Your task to perform on an android device: Show me the alarms in the clock app Image 0: 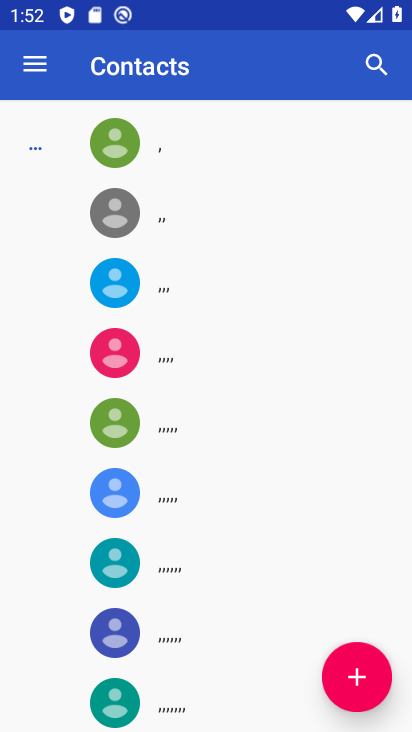
Step 0: press home button
Your task to perform on an android device: Show me the alarms in the clock app Image 1: 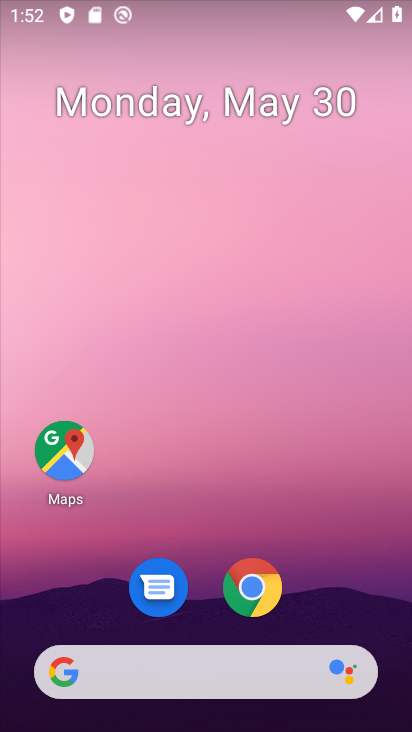
Step 1: drag from (130, 729) to (138, 205)
Your task to perform on an android device: Show me the alarms in the clock app Image 2: 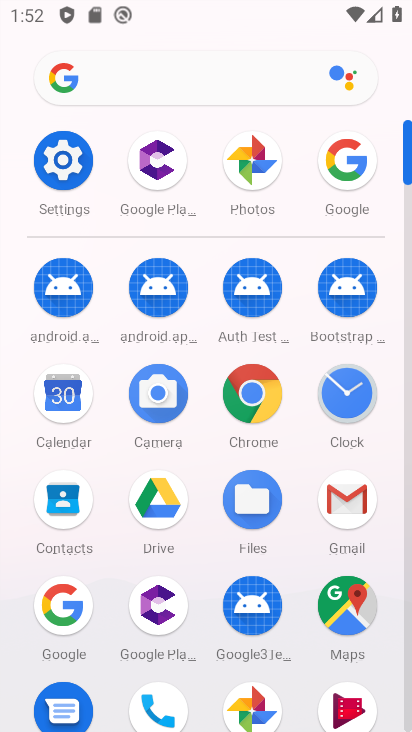
Step 2: click (349, 400)
Your task to perform on an android device: Show me the alarms in the clock app Image 3: 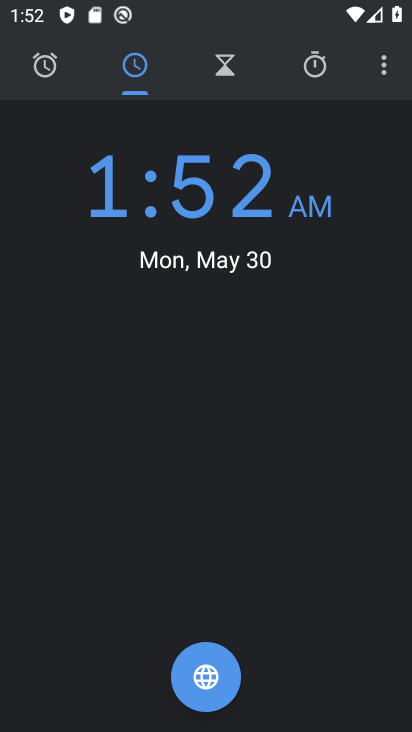
Step 3: click (47, 60)
Your task to perform on an android device: Show me the alarms in the clock app Image 4: 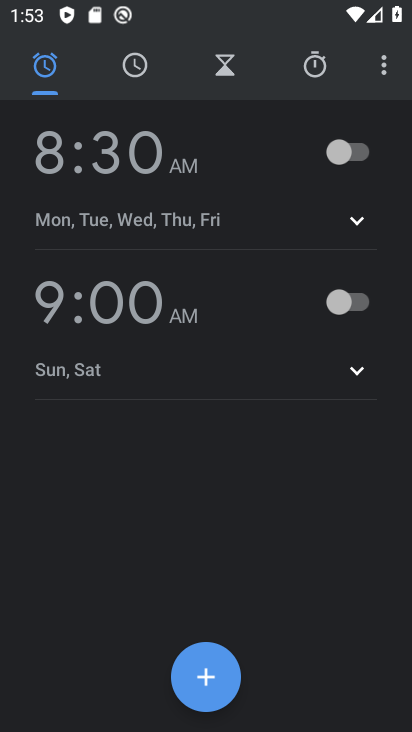
Step 4: task complete